Your task to perform on an android device: Go to CNN.com Image 0: 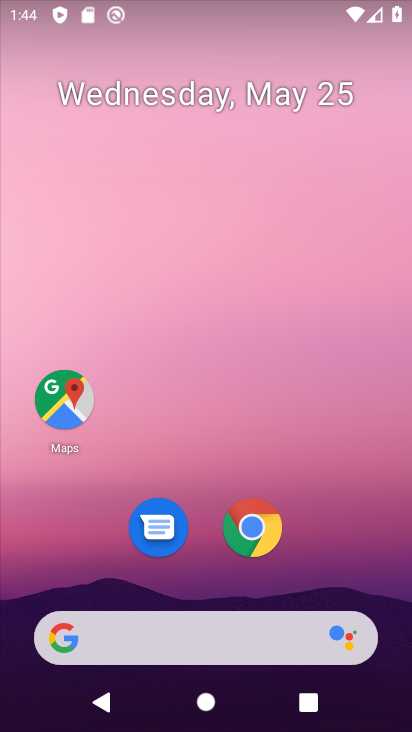
Step 0: click (403, 171)
Your task to perform on an android device: Go to CNN.com Image 1: 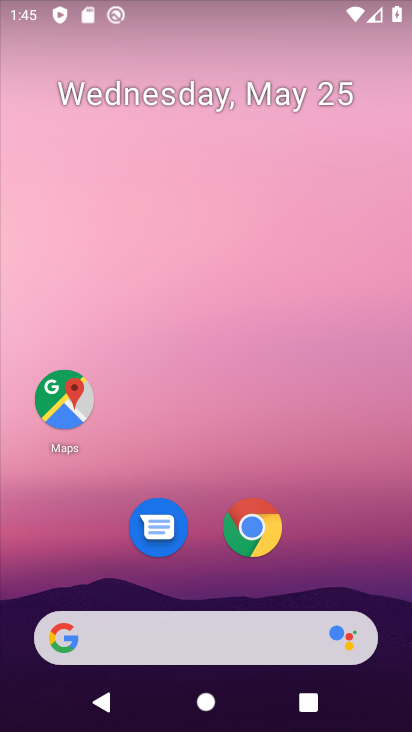
Step 1: click (177, 626)
Your task to perform on an android device: Go to CNN.com Image 2: 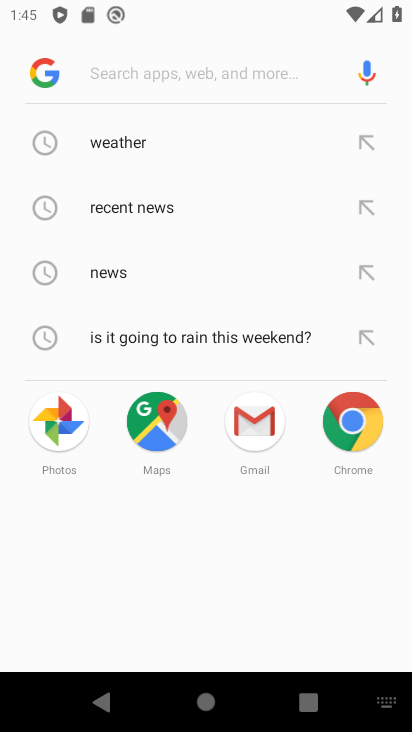
Step 2: click (122, 68)
Your task to perform on an android device: Go to CNN.com Image 3: 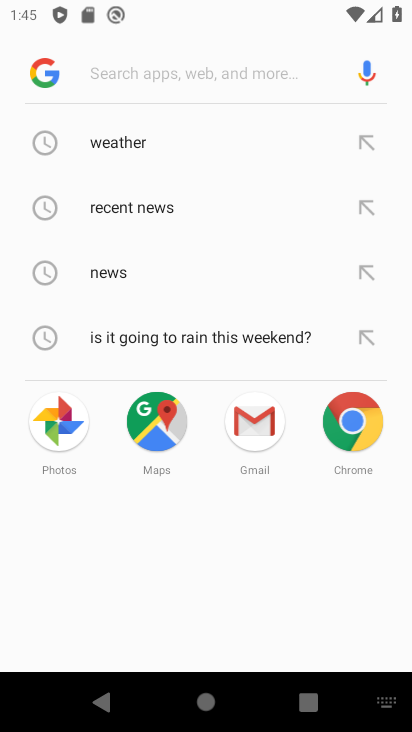
Step 3: type "CNN.com"
Your task to perform on an android device: Go to CNN.com Image 4: 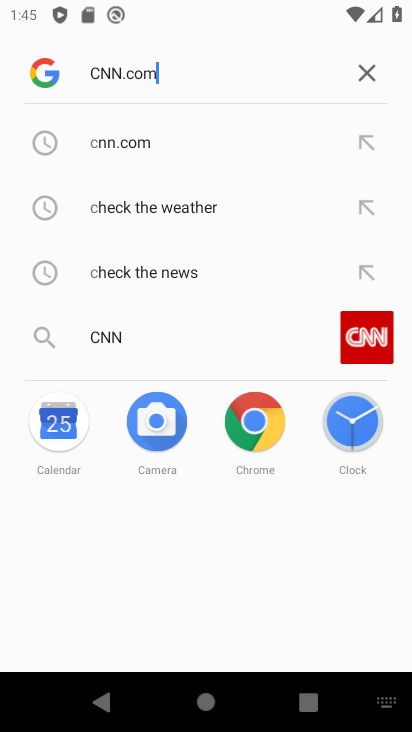
Step 4: type ""
Your task to perform on an android device: Go to CNN.com Image 5: 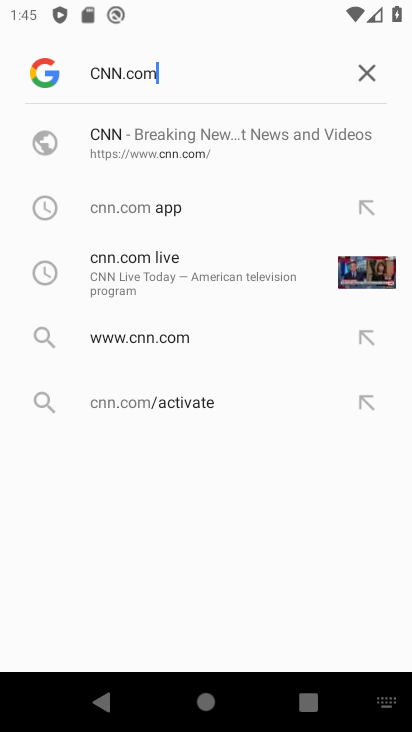
Step 5: click (147, 134)
Your task to perform on an android device: Go to CNN.com Image 6: 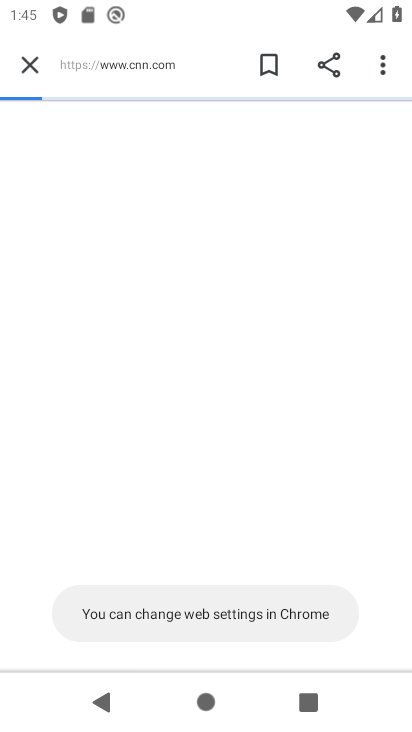
Step 6: task complete